Your task to perform on an android device: toggle airplane mode Image 0: 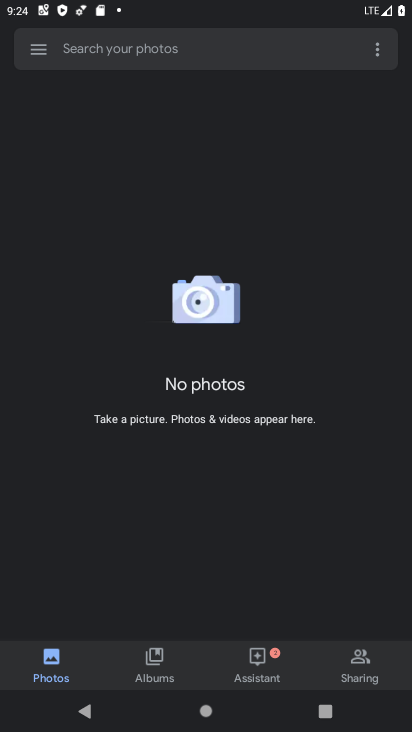
Step 0: press home button
Your task to perform on an android device: toggle airplane mode Image 1: 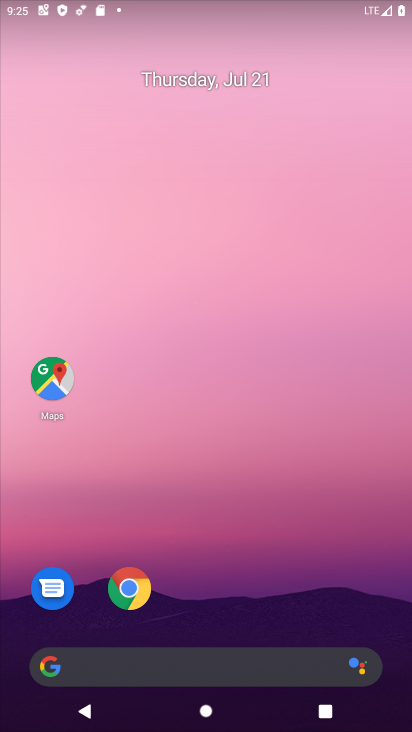
Step 1: drag from (385, 656) to (302, 97)
Your task to perform on an android device: toggle airplane mode Image 2: 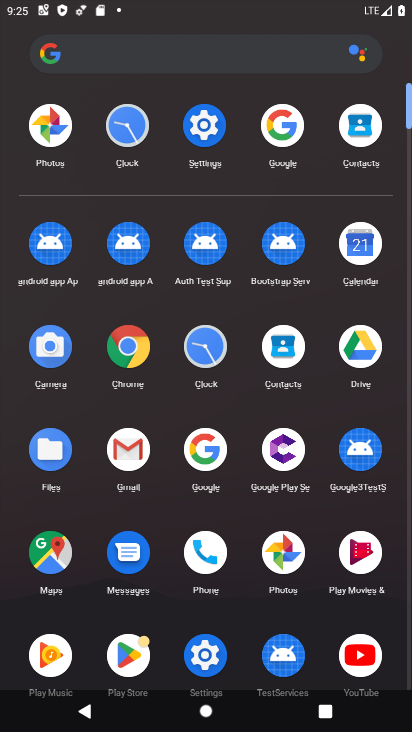
Step 2: click (182, 126)
Your task to perform on an android device: toggle airplane mode Image 3: 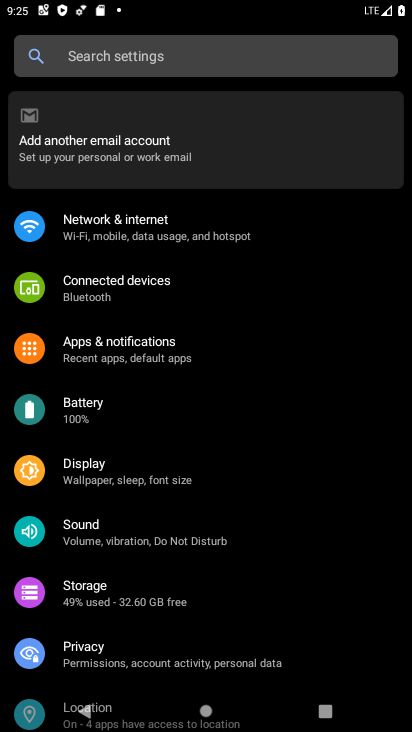
Step 3: click (141, 239)
Your task to perform on an android device: toggle airplane mode Image 4: 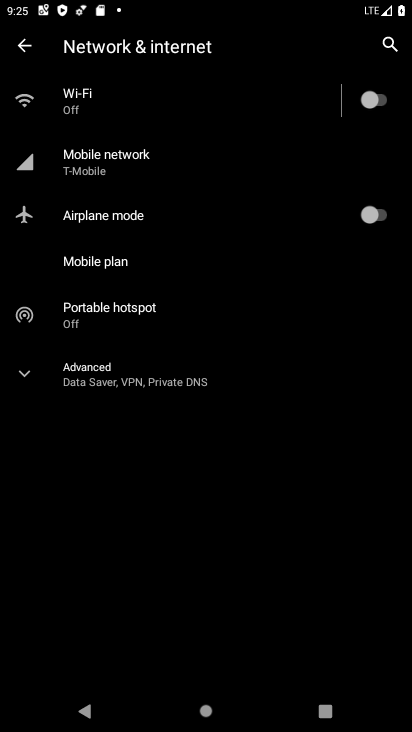
Step 4: click (386, 211)
Your task to perform on an android device: toggle airplane mode Image 5: 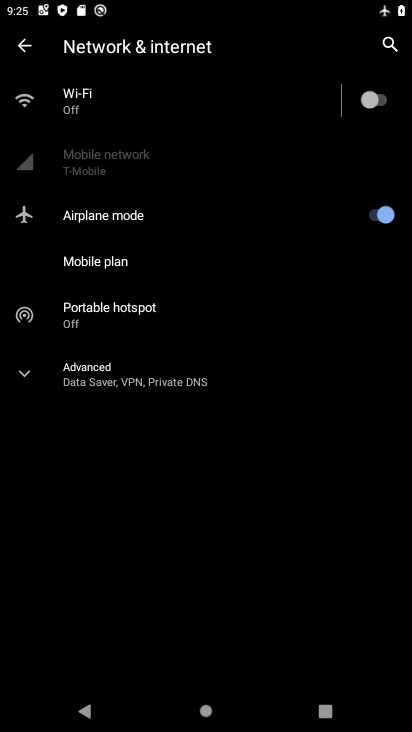
Step 5: task complete